Your task to perform on an android device: check out phone information Image 0: 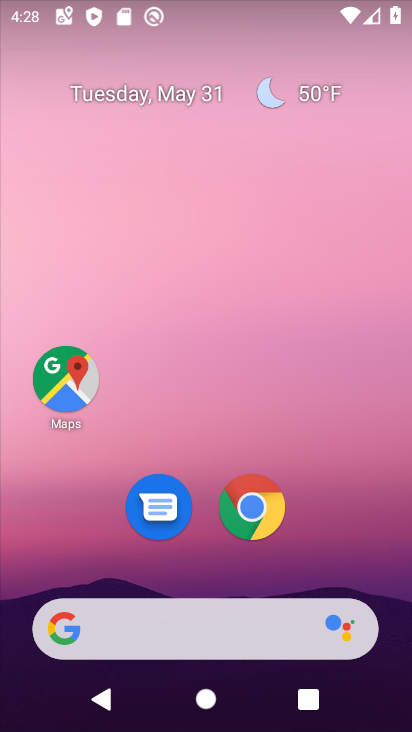
Step 0: drag from (218, 444) to (212, 0)
Your task to perform on an android device: check out phone information Image 1: 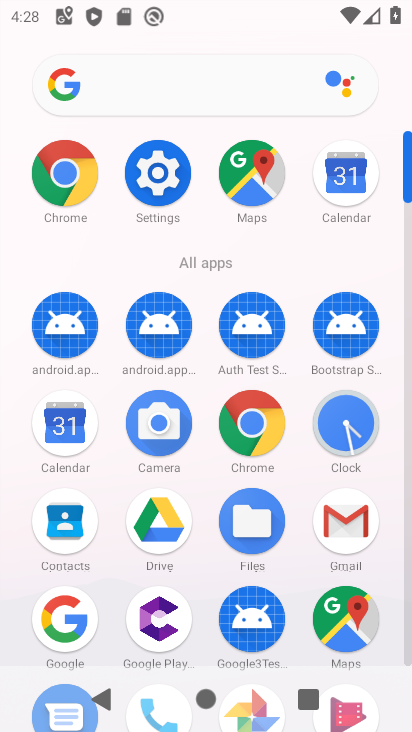
Step 1: drag from (206, 334) to (175, 71)
Your task to perform on an android device: check out phone information Image 2: 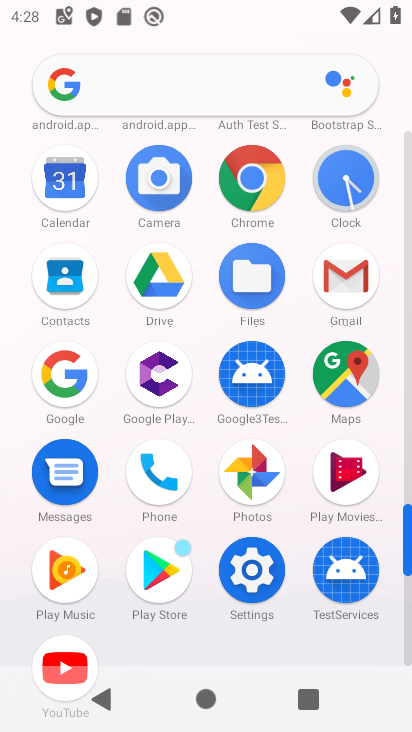
Step 2: click (158, 462)
Your task to perform on an android device: check out phone information Image 3: 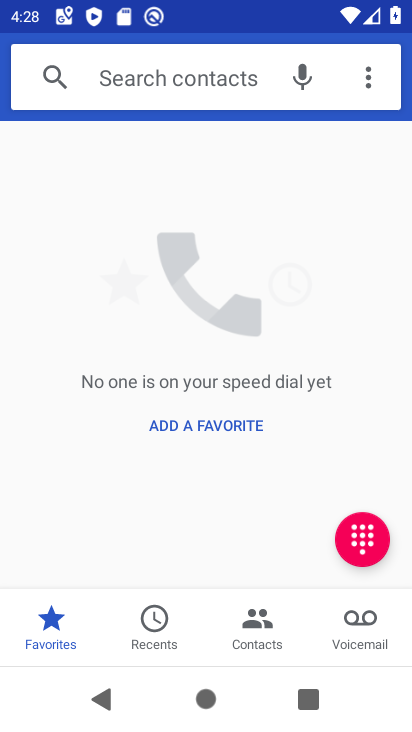
Step 3: click (366, 74)
Your task to perform on an android device: check out phone information Image 4: 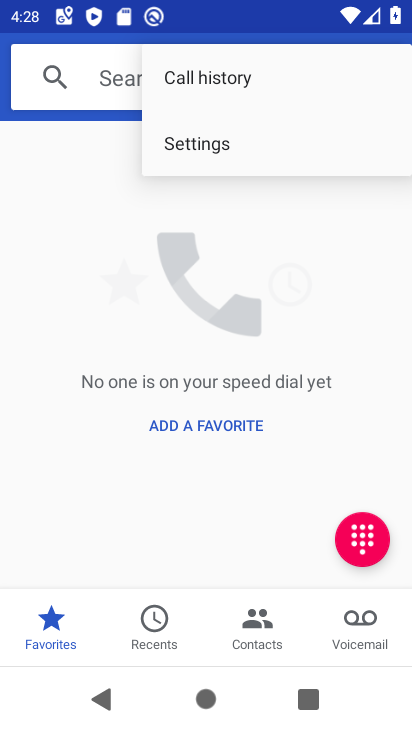
Step 4: click (294, 145)
Your task to perform on an android device: check out phone information Image 5: 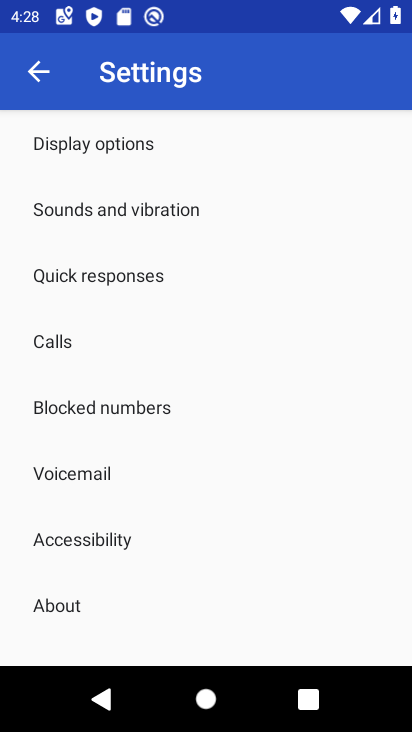
Step 5: click (69, 603)
Your task to perform on an android device: check out phone information Image 6: 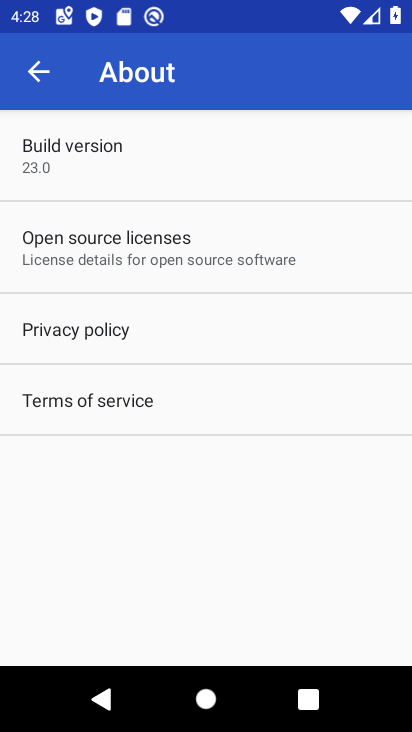
Step 6: task complete